Your task to perform on an android device: turn on sleep mode Image 0: 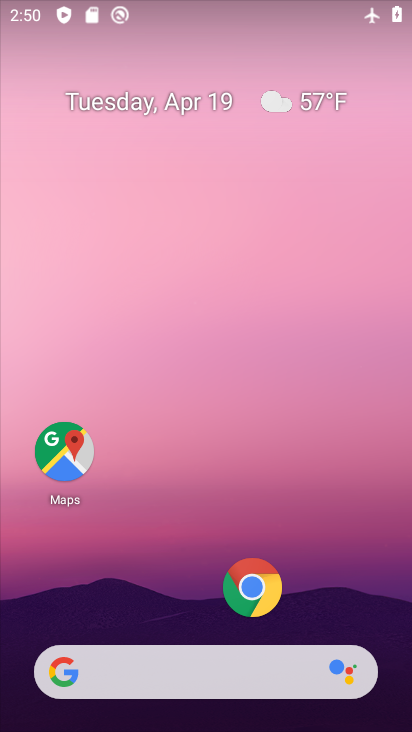
Step 0: drag from (181, 579) to (306, 10)
Your task to perform on an android device: turn on sleep mode Image 1: 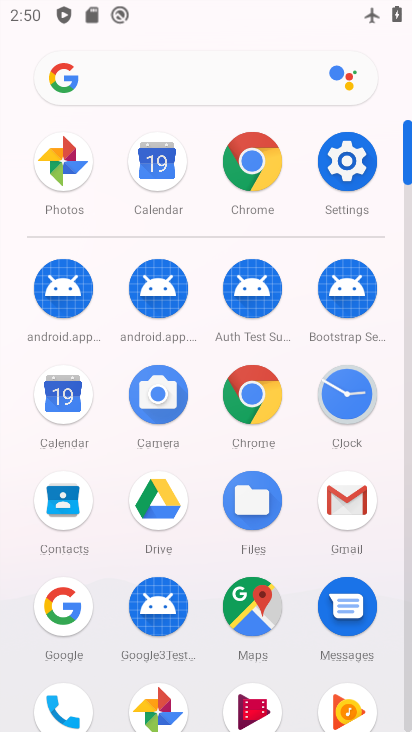
Step 1: click (351, 170)
Your task to perform on an android device: turn on sleep mode Image 2: 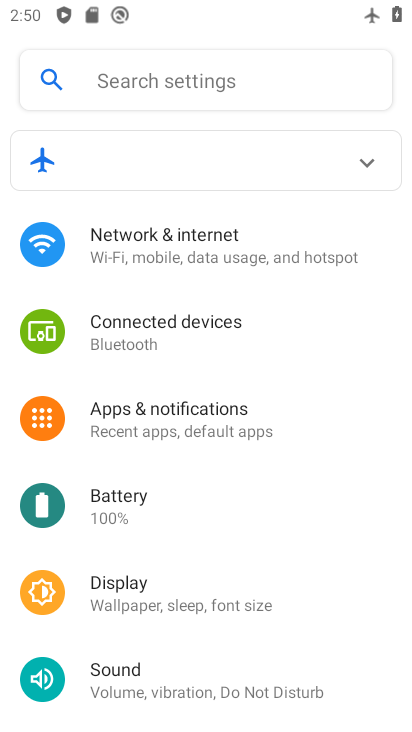
Step 2: click (195, 74)
Your task to perform on an android device: turn on sleep mode Image 3: 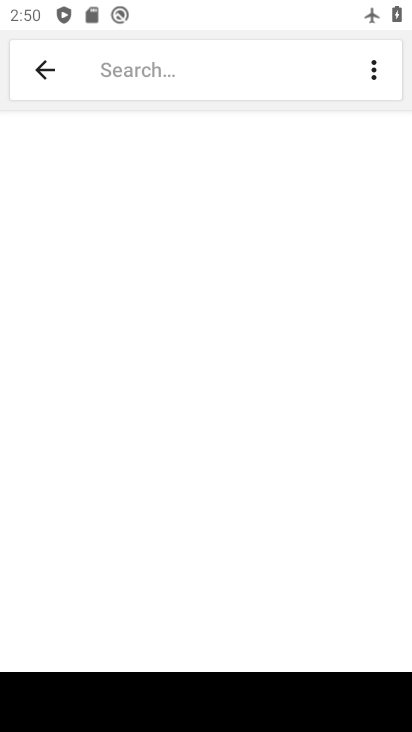
Step 3: type "sleep mode"
Your task to perform on an android device: turn on sleep mode Image 4: 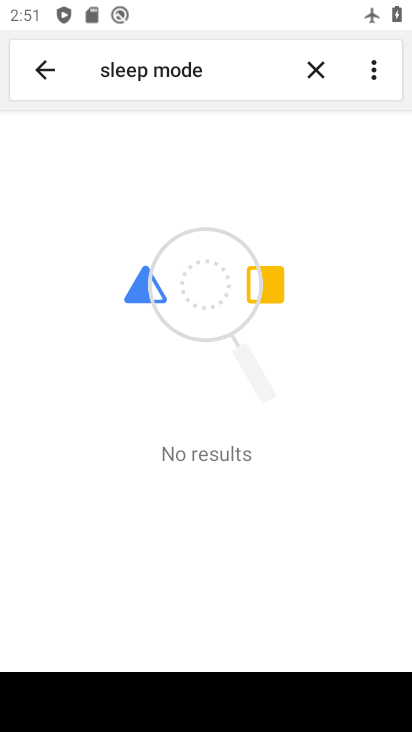
Step 4: task complete